Your task to perform on an android device: turn vacation reply on in the gmail app Image 0: 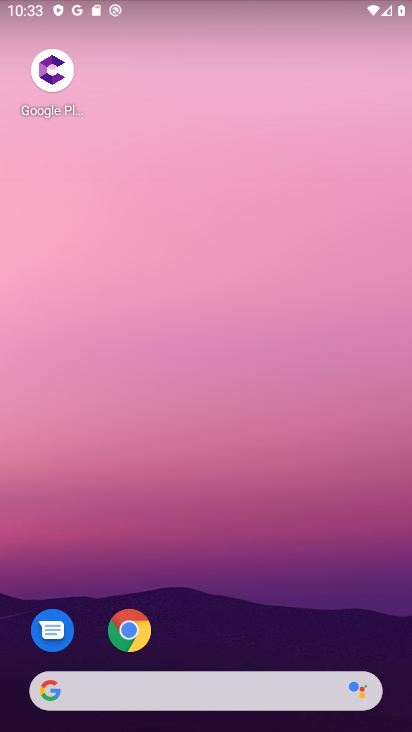
Step 0: drag from (185, 661) to (256, 103)
Your task to perform on an android device: turn vacation reply on in the gmail app Image 1: 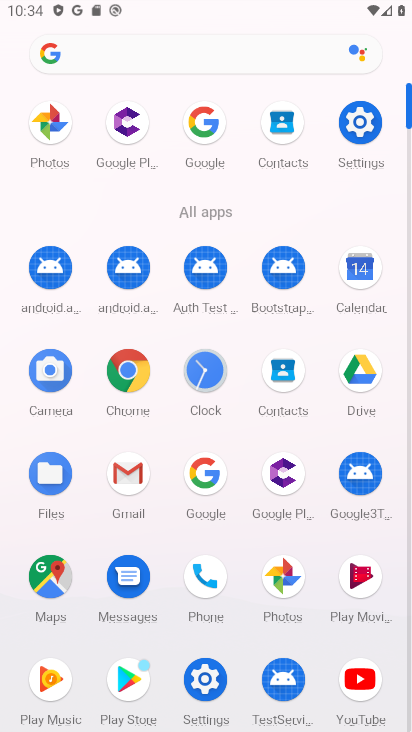
Step 1: click (132, 487)
Your task to perform on an android device: turn vacation reply on in the gmail app Image 2: 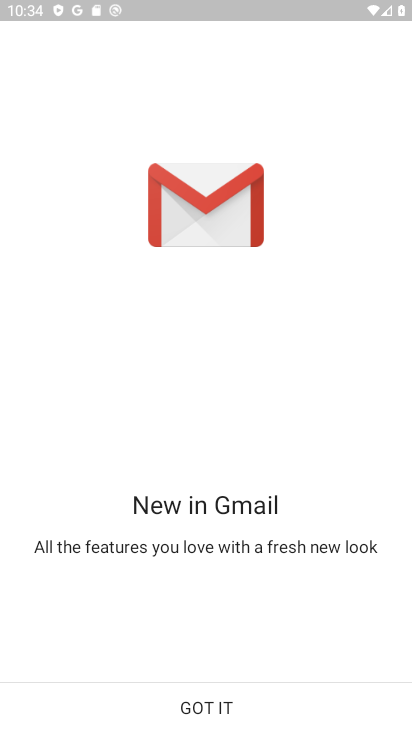
Step 2: click (204, 692)
Your task to perform on an android device: turn vacation reply on in the gmail app Image 3: 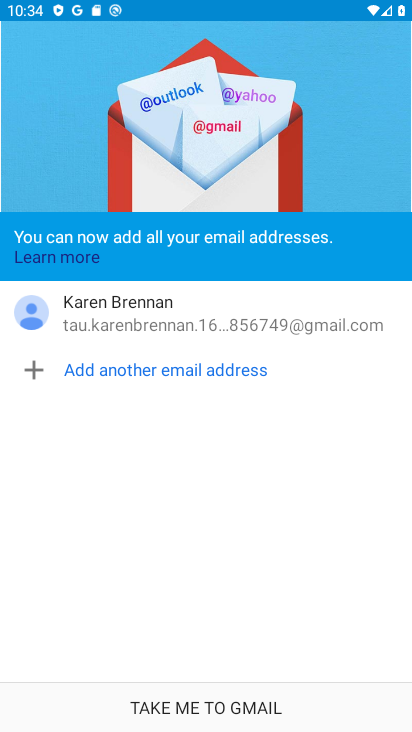
Step 3: click (213, 701)
Your task to perform on an android device: turn vacation reply on in the gmail app Image 4: 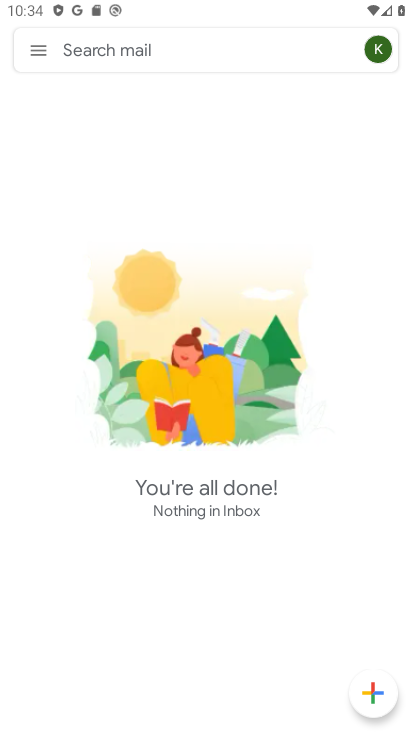
Step 4: click (53, 66)
Your task to perform on an android device: turn vacation reply on in the gmail app Image 5: 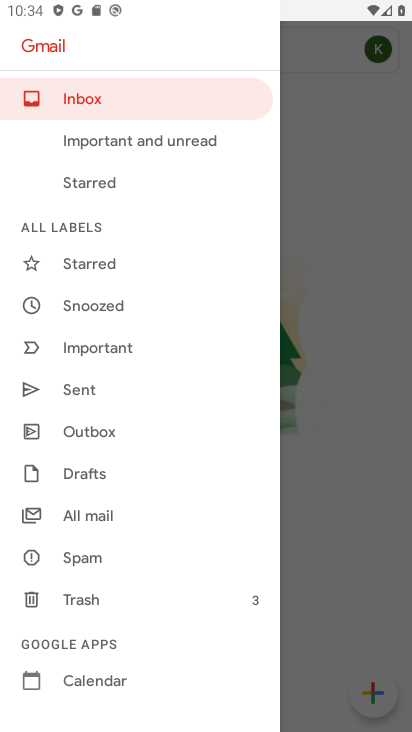
Step 5: drag from (101, 662) to (174, 191)
Your task to perform on an android device: turn vacation reply on in the gmail app Image 6: 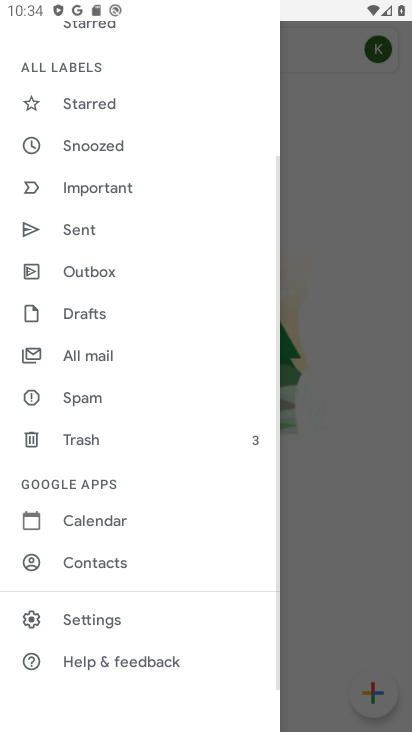
Step 6: drag from (96, 664) to (227, 99)
Your task to perform on an android device: turn vacation reply on in the gmail app Image 7: 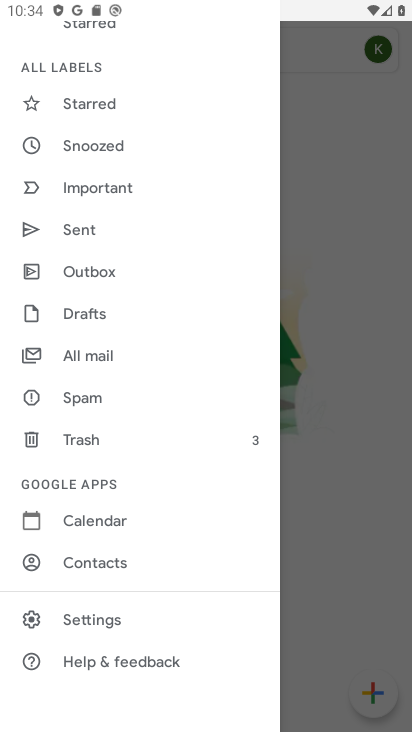
Step 7: click (124, 625)
Your task to perform on an android device: turn vacation reply on in the gmail app Image 8: 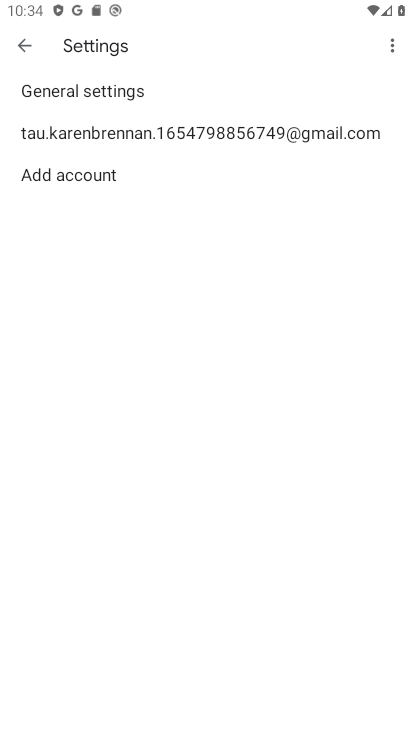
Step 8: click (223, 127)
Your task to perform on an android device: turn vacation reply on in the gmail app Image 9: 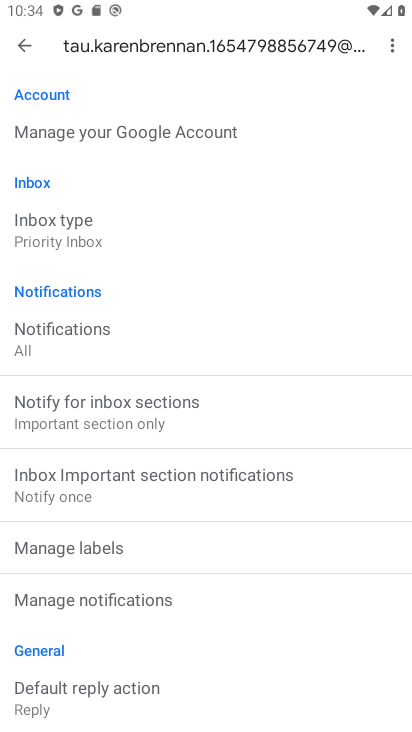
Step 9: drag from (116, 612) to (184, 194)
Your task to perform on an android device: turn vacation reply on in the gmail app Image 10: 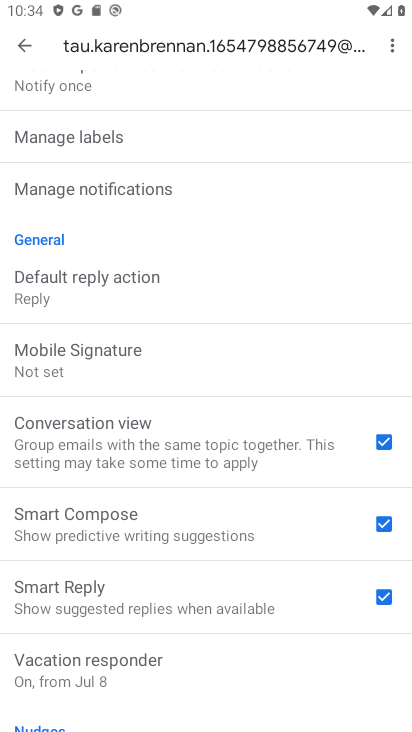
Step 10: click (108, 680)
Your task to perform on an android device: turn vacation reply on in the gmail app Image 11: 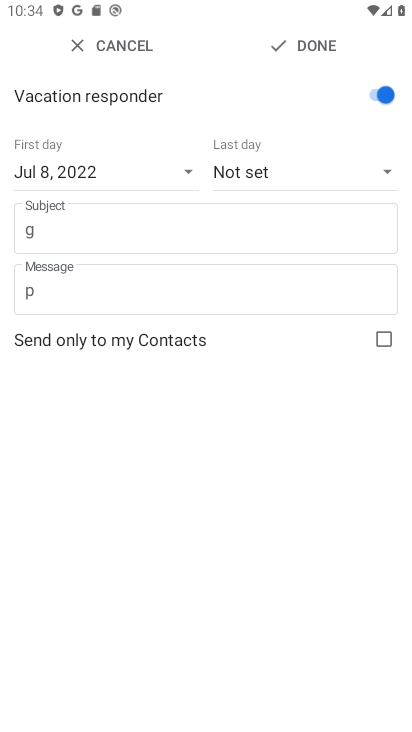
Step 11: click (299, 168)
Your task to perform on an android device: turn vacation reply on in the gmail app Image 12: 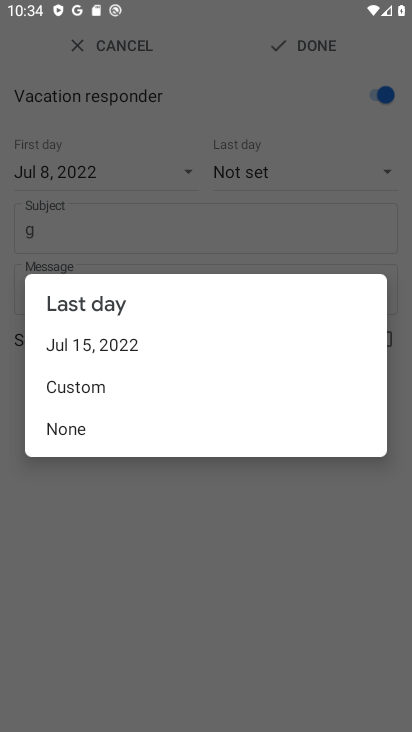
Step 12: click (225, 333)
Your task to perform on an android device: turn vacation reply on in the gmail app Image 13: 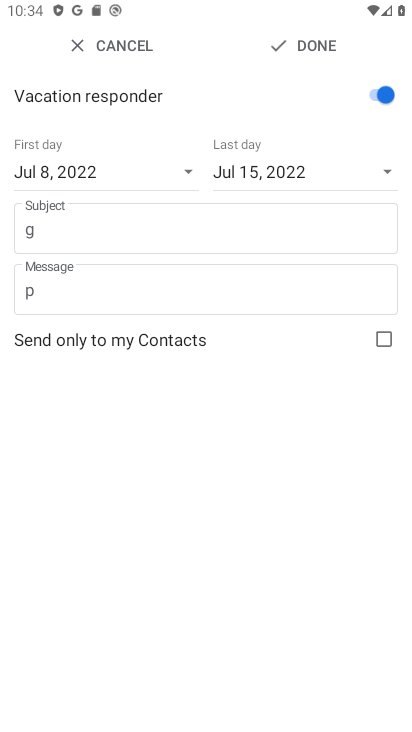
Step 13: click (349, 34)
Your task to perform on an android device: turn vacation reply on in the gmail app Image 14: 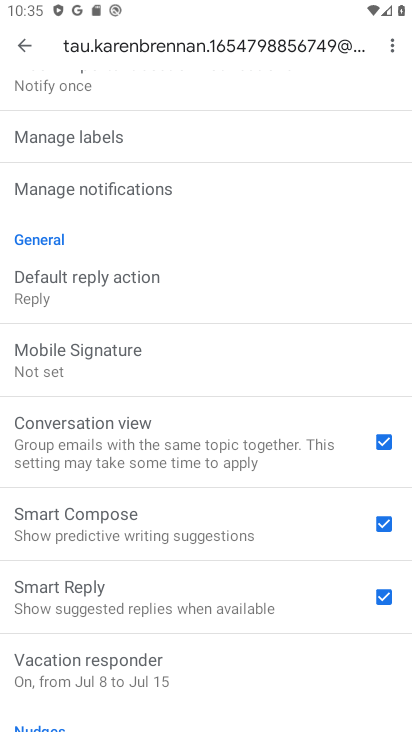
Step 14: task complete